Your task to perform on an android device: Open Google Image 0: 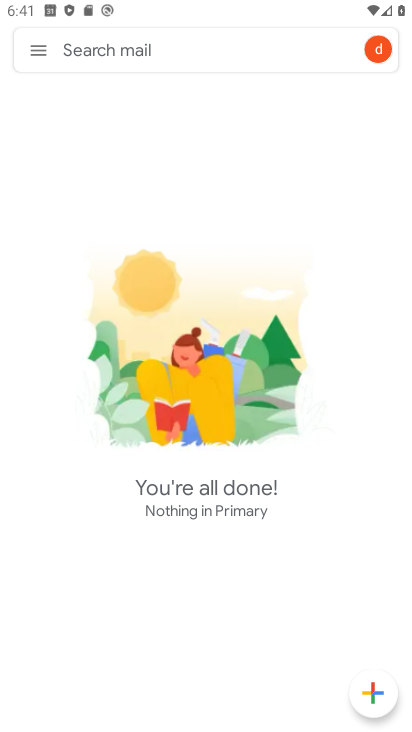
Step 0: press home button
Your task to perform on an android device: Open Google Image 1: 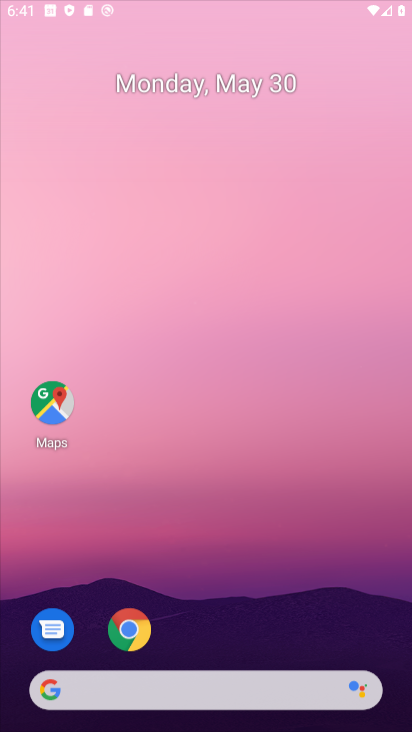
Step 1: drag from (247, 615) to (225, 11)
Your task to perform on an android device: Open Google Image 2: 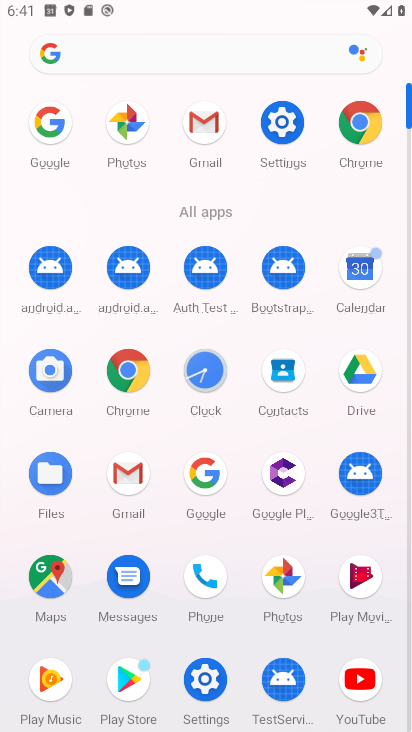
Step 2: click (207, 485)
Your task to perform on an android device: Open Google Image 3: 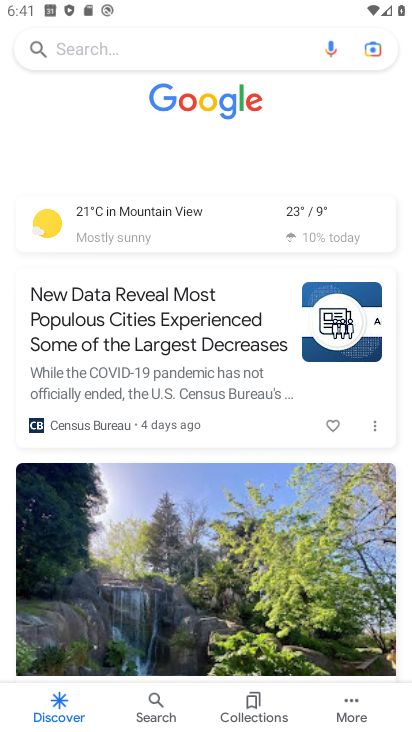
Step 3: task complete